Your task to perform on an android device: uninstall "AliExpress" Image 0: 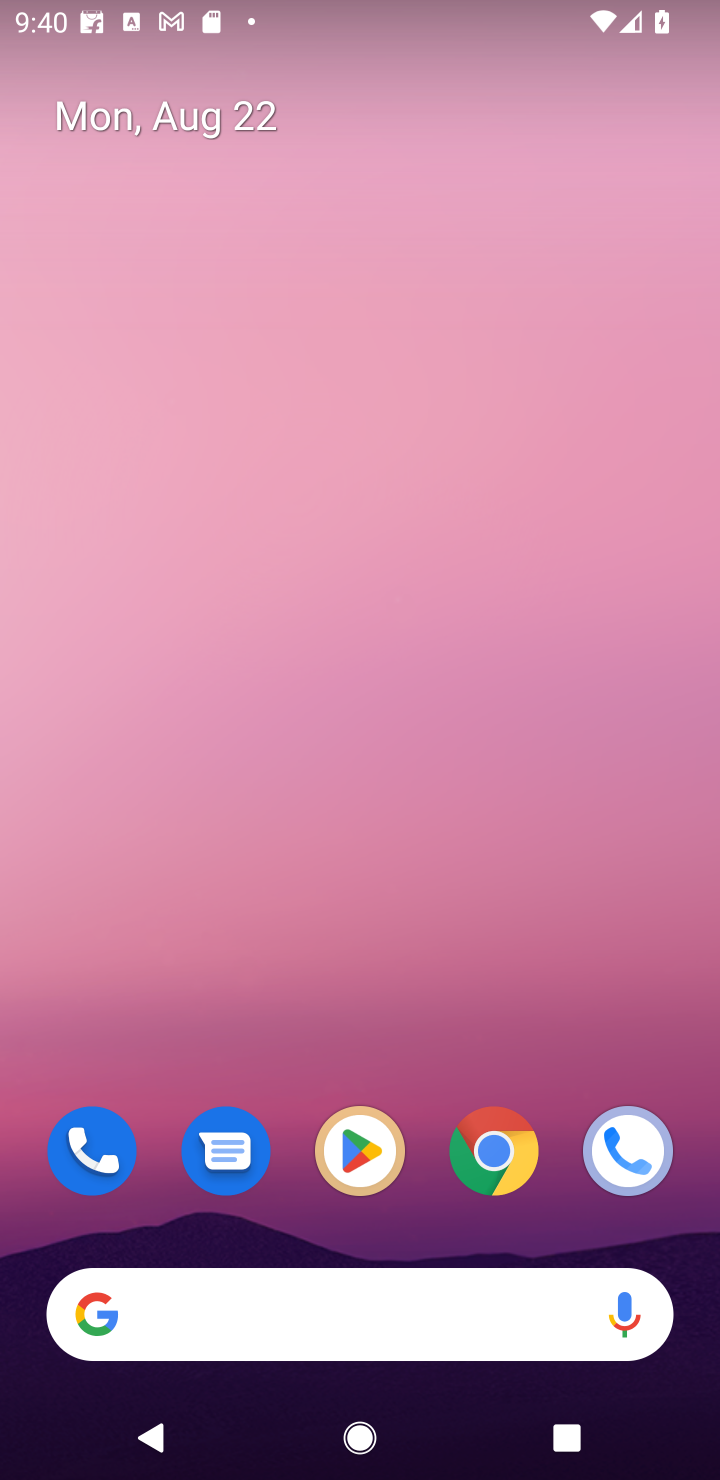
Step 0: press home button
Your task to perform on an android device: uninstall "AliExpress" Image 1: 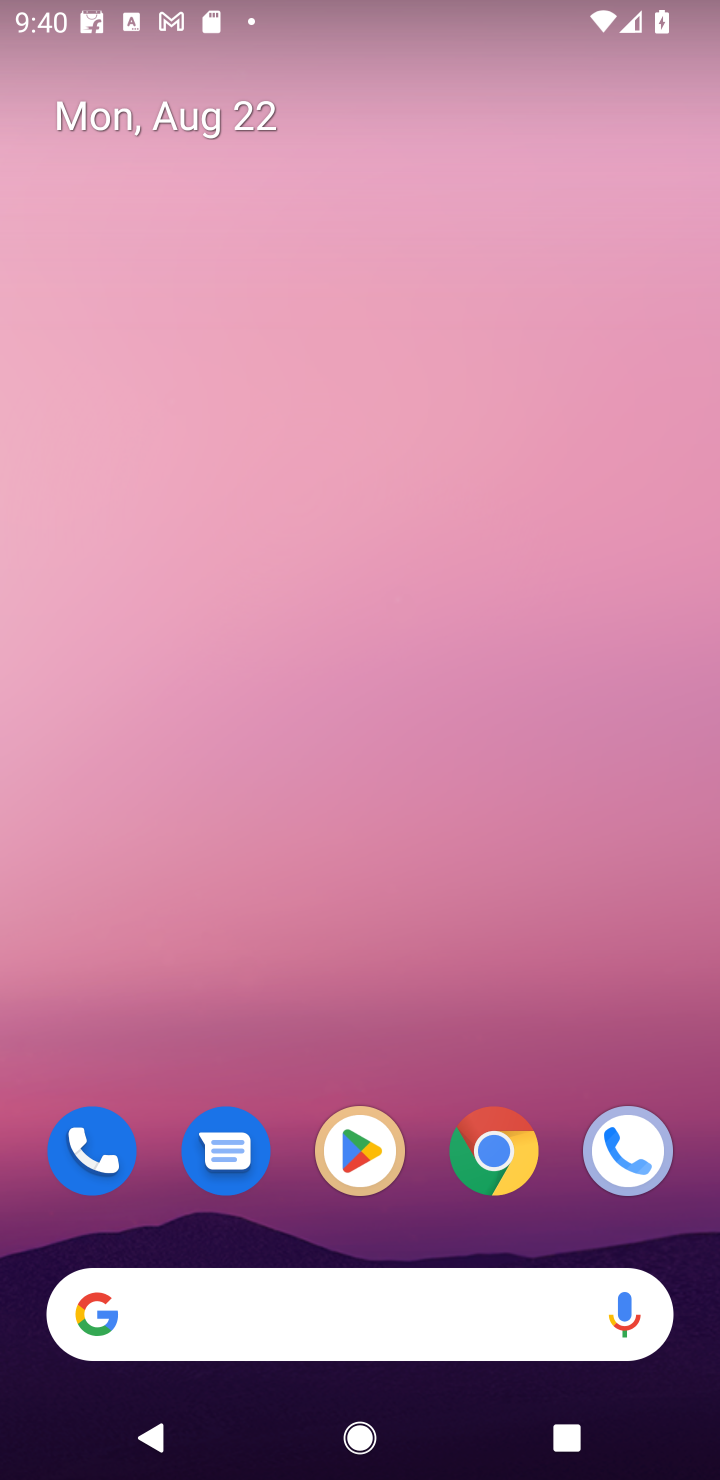
Step 1: click (351, 1152)
Your task to perform on an android device: uninstall "AliExpress" Image 2: 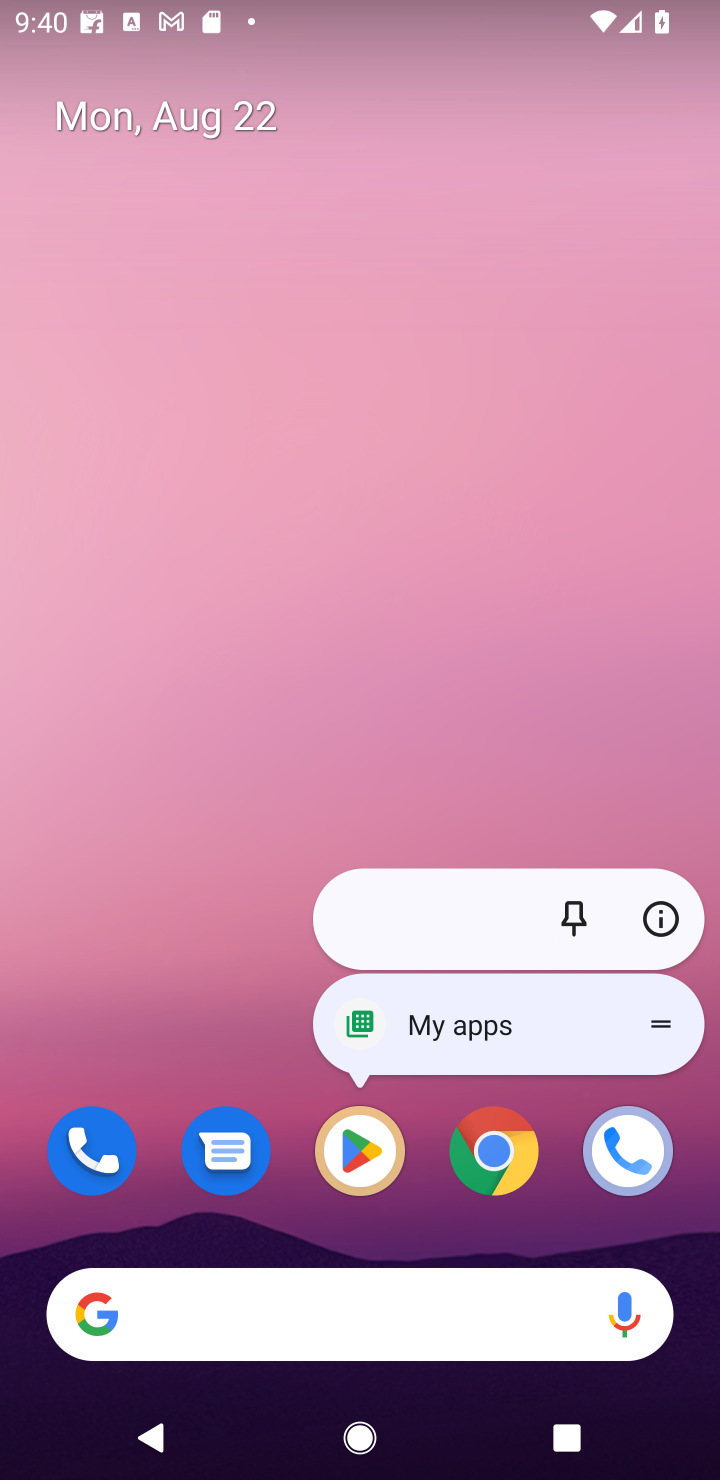
Step 2: click (351, 1152)
Your task to perform on an android device: uninstall "AliExpress" Image 3: 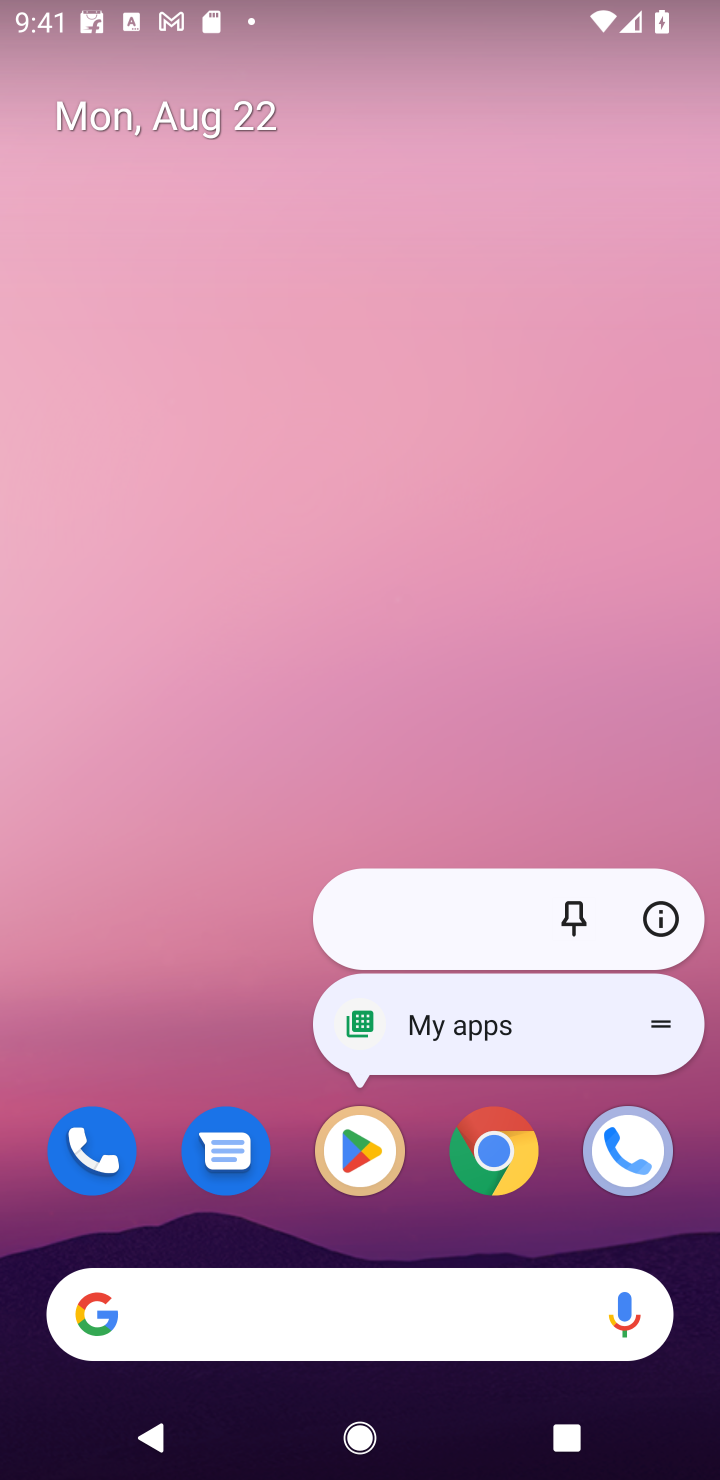
Step 3: click (335, 1178)
Your task to perform on an android device: uninstall "AliExpress" Image 4: 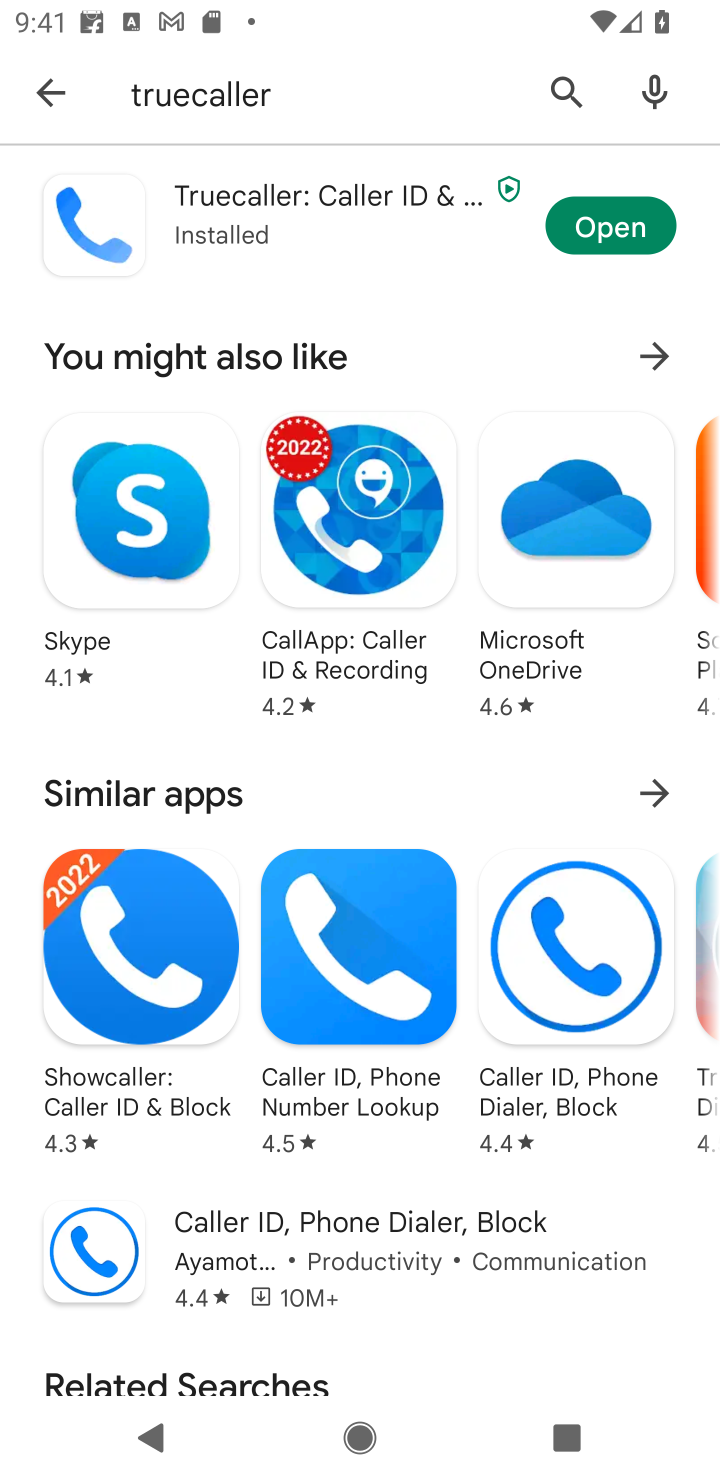
Step 4: click (553, 90)
Your task to perform on an android device: uninstall "AliExpress" Image 5: 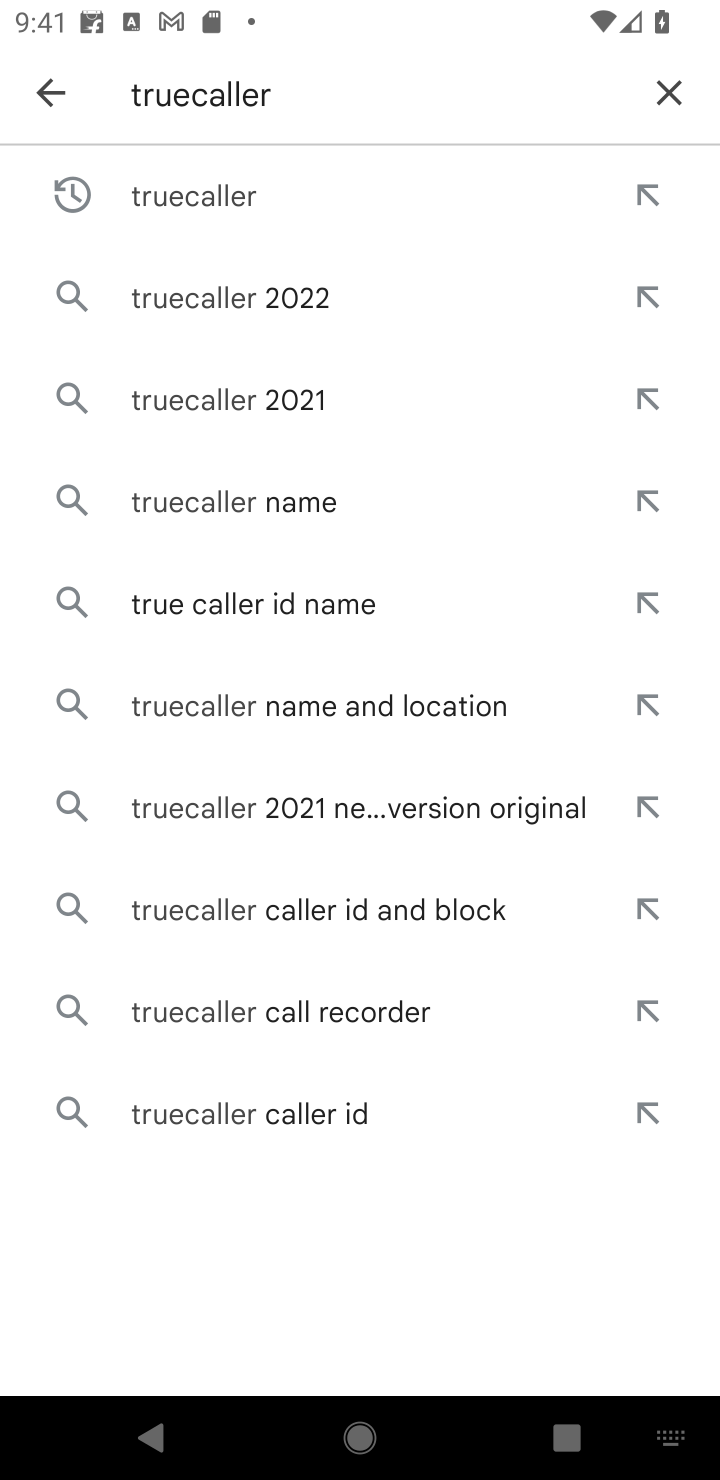
Step 5: click (666, 81)
Your task to perform on an android device: uninstall "AliExpress" Image 6: 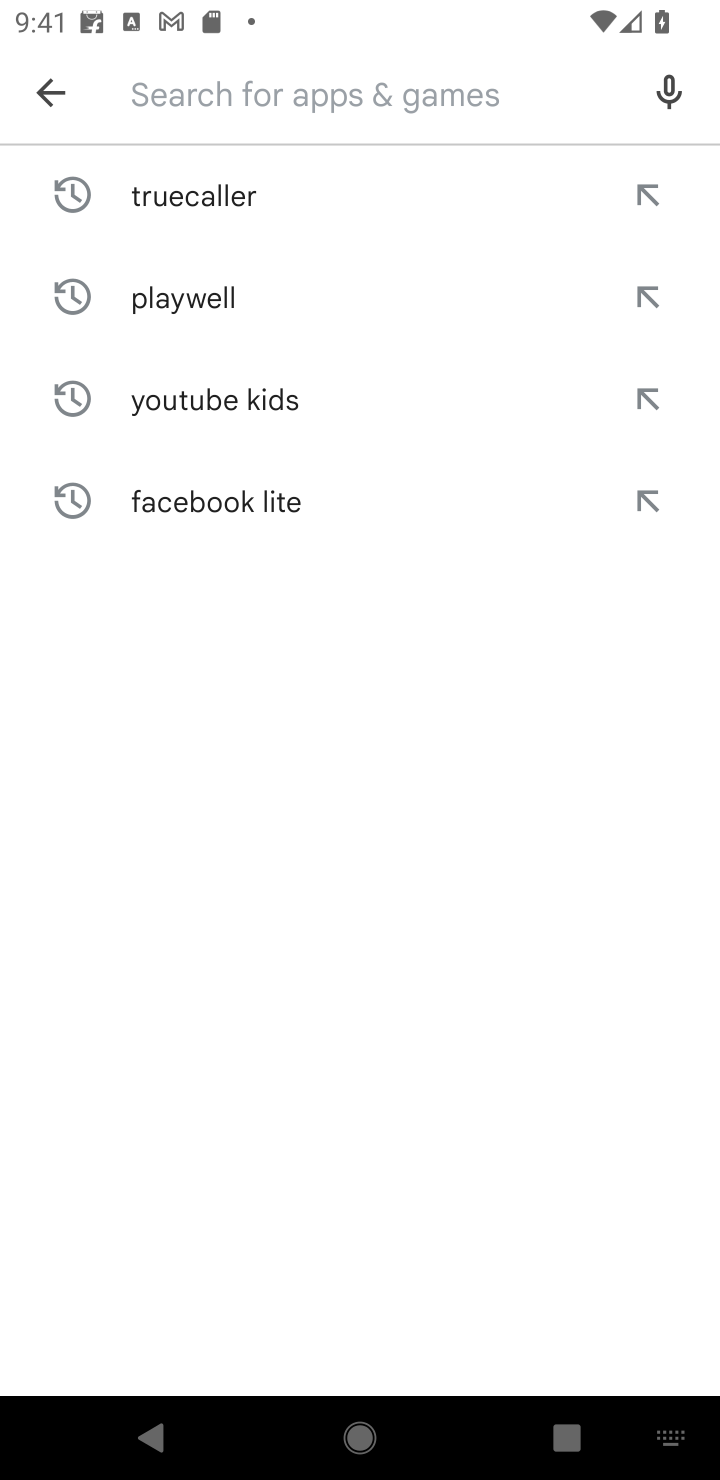
Step 6: type "AliExpress"
Your task to perform on an android device: uninstall "AliExpress" Image 7: 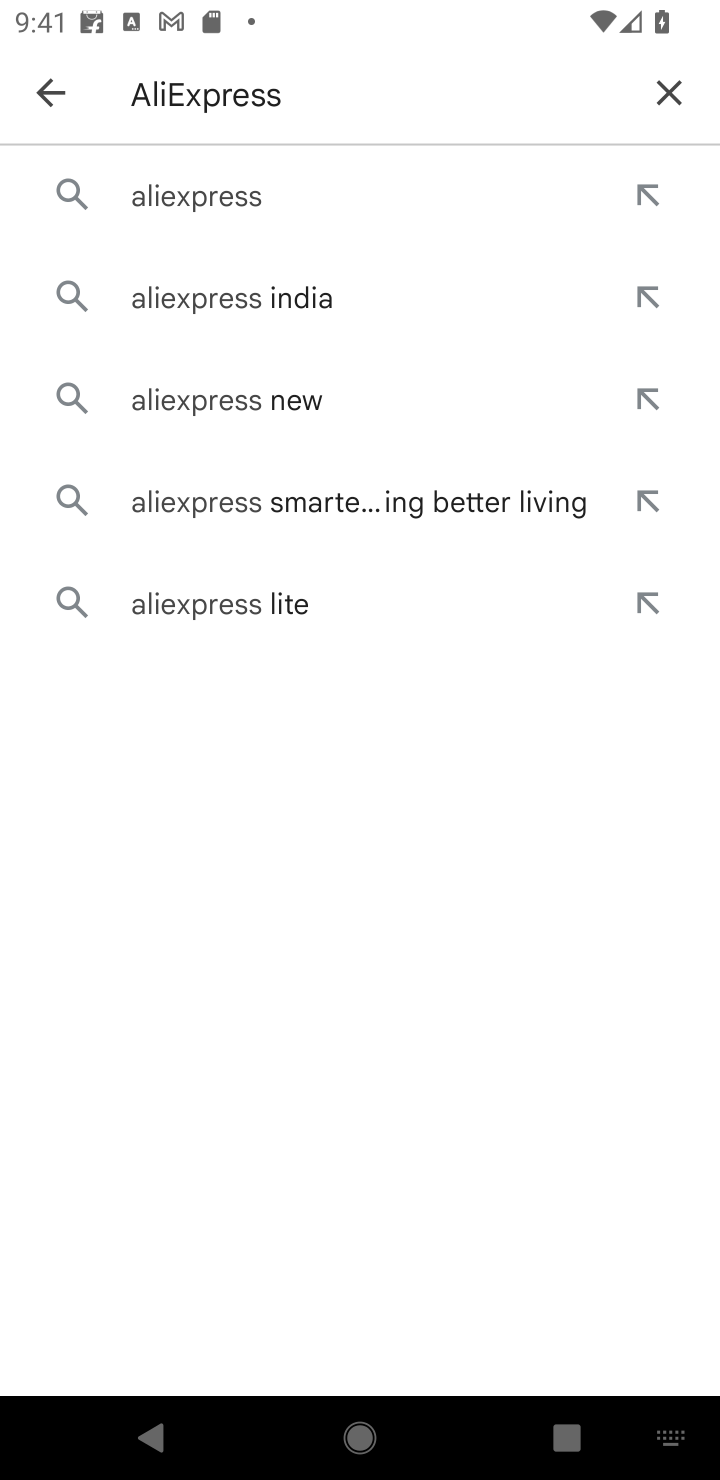
Step 7: click (208, 198)
Your task to perform on an android device: uninstall "AliExpress" Image 8: 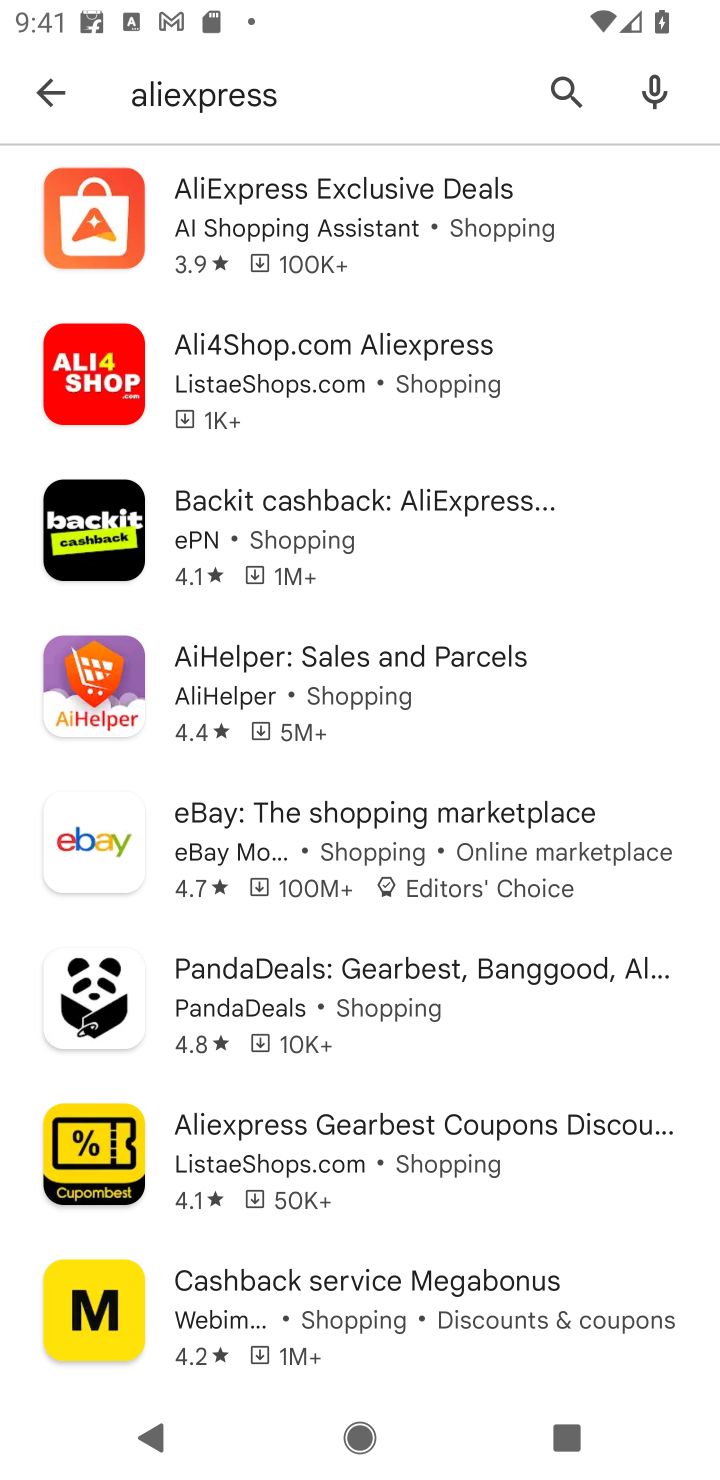
Step 8: click (338, 235)
Your task to perform on an android device: uninstall "AliExpress" Image 9: 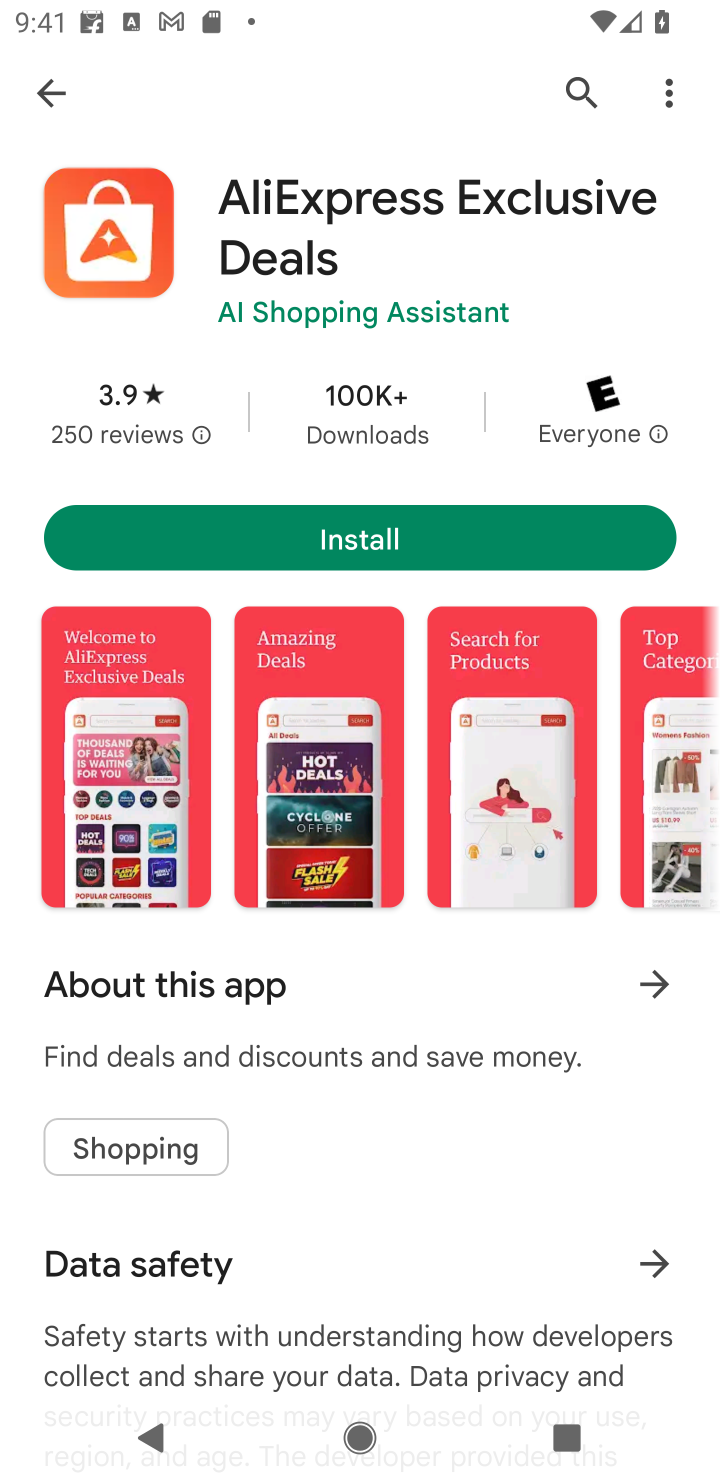
Step 9: task complete